Your task to perform on an android device: turn pop-ups off in chrome Image 0: 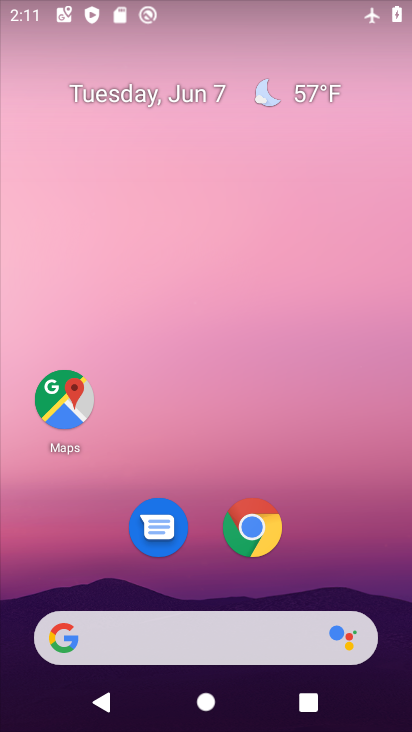
Step 0: click (262, 530)
Your task to perform on an android device: turn pop-ups off in chrome Image 1: 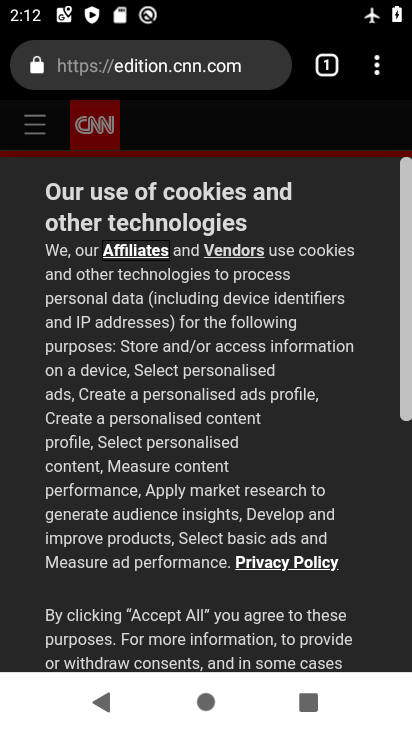
Step 1: click (387, 67)
Your task to perform on an android device: turn pop-ups off in chrome Image 2: 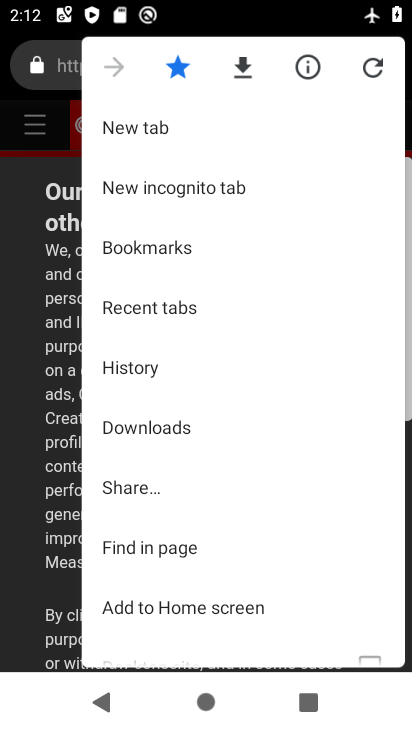
Step 2: drag from (267, 643) to (201, 146)
Your task to perform on an android device: turn pop-ups off in chrome Image 3: 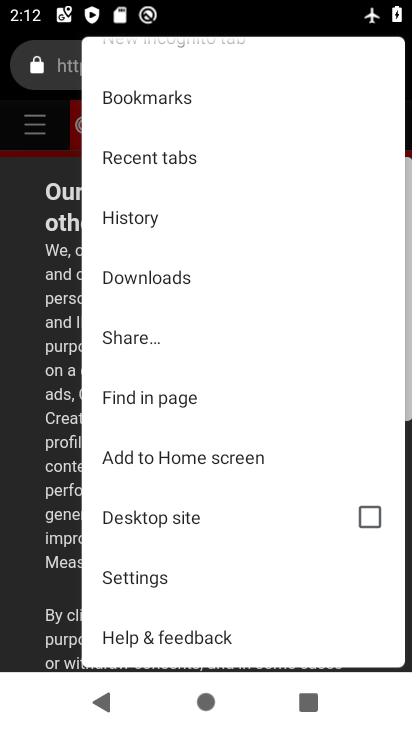
Step 3: click (211, 582)
Your task to perform on an android device: turn pop-ups off in chrome Image 4: 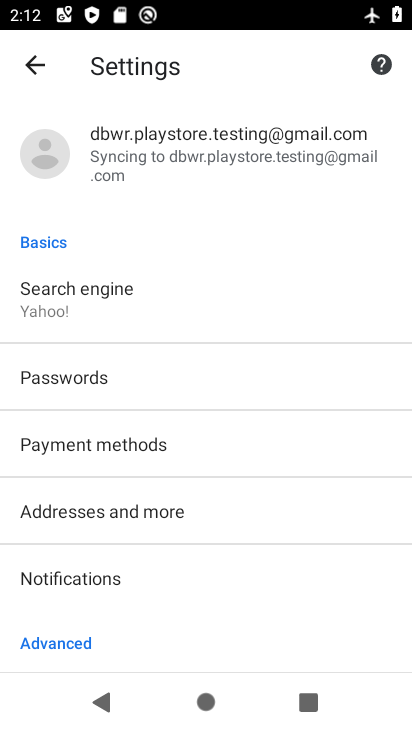
Step 4: drag from (185, 613) to (130, 141)
Your task to perform on an android device: turn pop-ups off in chrome Image 5: 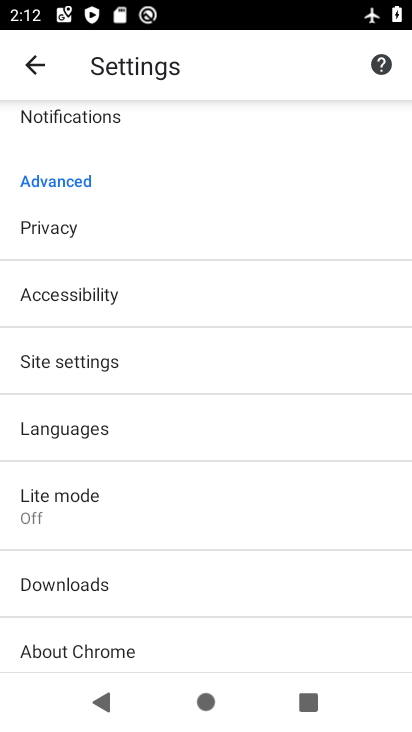
Step 5: click (118, 362)
Your task to perform on an android device: turn pop-ups off in chrome Image 6: 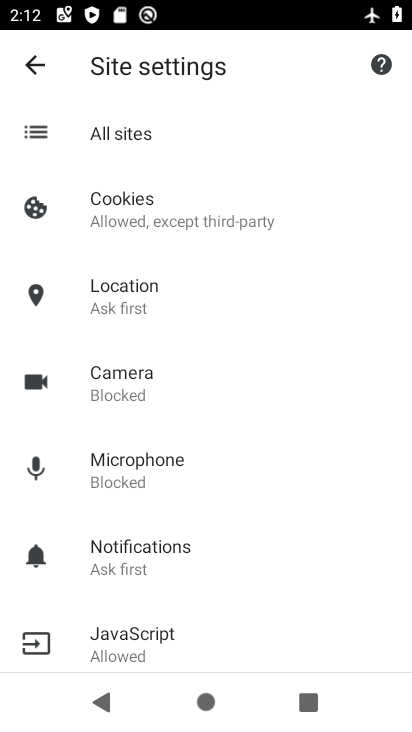
Step 6: drag from (256, 642) to (198, 346)
Your task to perform on an android device: turn pop-ups off in chrome Image 7: 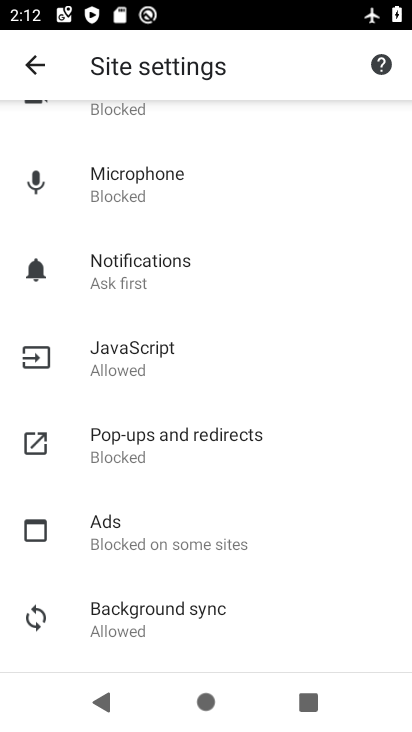
Step 7: click (229, 435)
Your task to perform on an android device: turn pop-ups off in chrome Image 8: 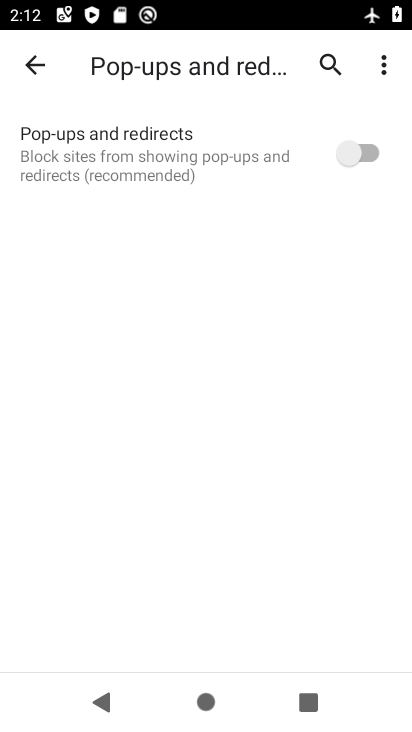
Step 8: task complete